Your task to perform on an android device: Open display settings Image 0: 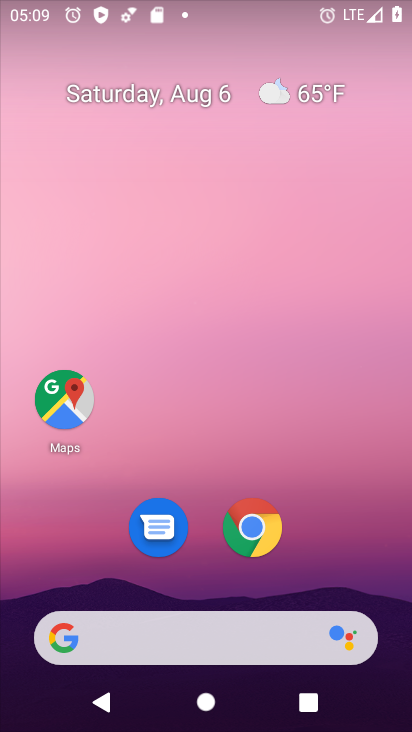
Step 0: drag from (250, 647) to (248, 143)
Your task to perform on an android device: Open display settings Image 1: 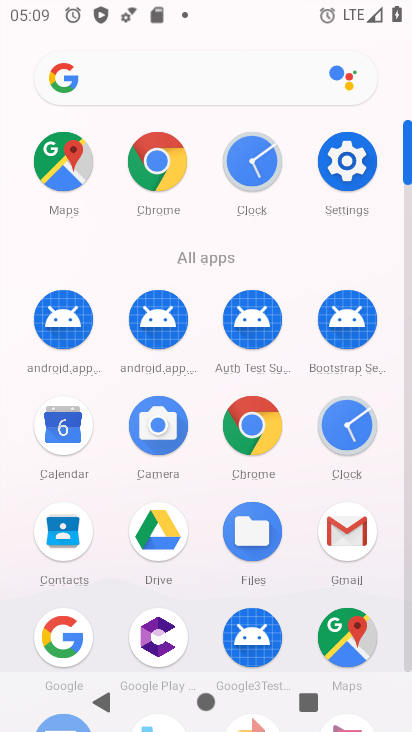
Step 1: click (341, 151)
Your task to perform on an android device: Open display settings Image 2: 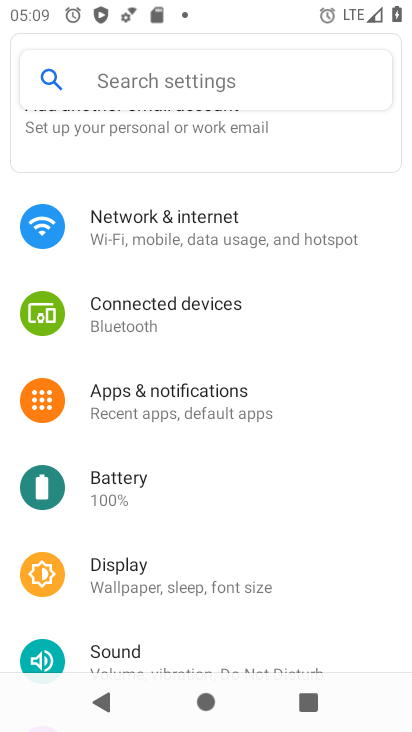
Step 2: task complete